Your task to perform on an android device: turn on priority inbox in the gmail app Image 0: 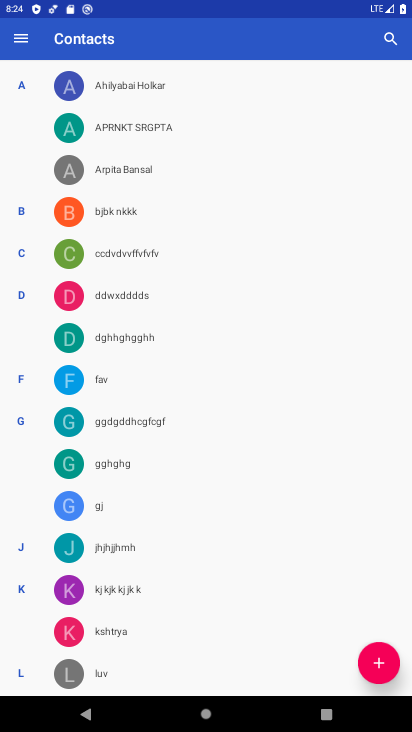
Step 0: press home button
Your task to perform on an android device: turn on priority inbox in the gmail app Image 1: 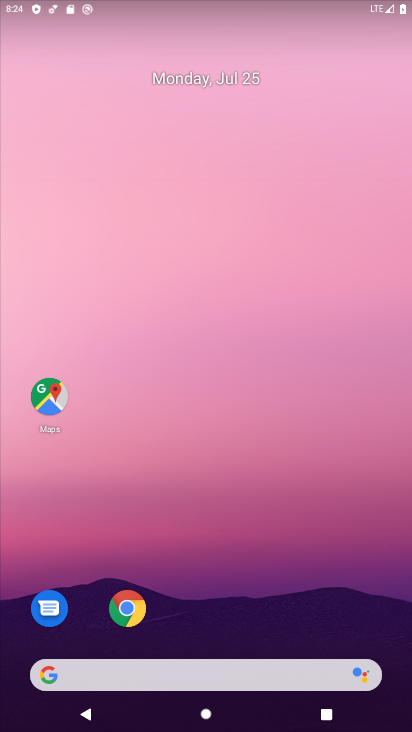
Step 1: drag from (227, 644) to (239, 68)
Your task to perform on an android device: turn on priority inbox in the gmail app Image 2: 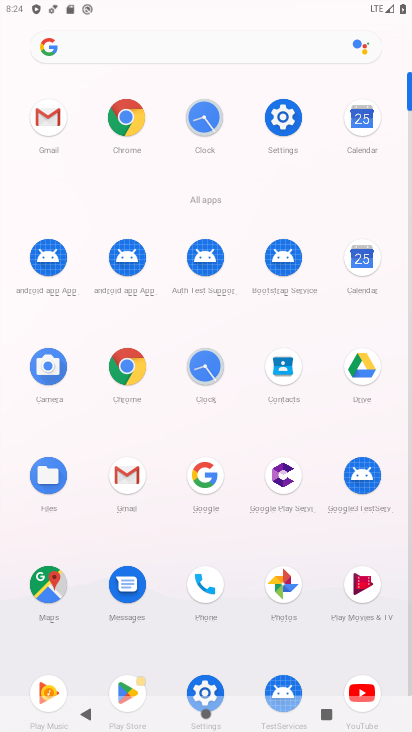
Step 2: click (125, 475)
Your task to perform on an android device: turn on priority inbox in the gmail app Image 3: 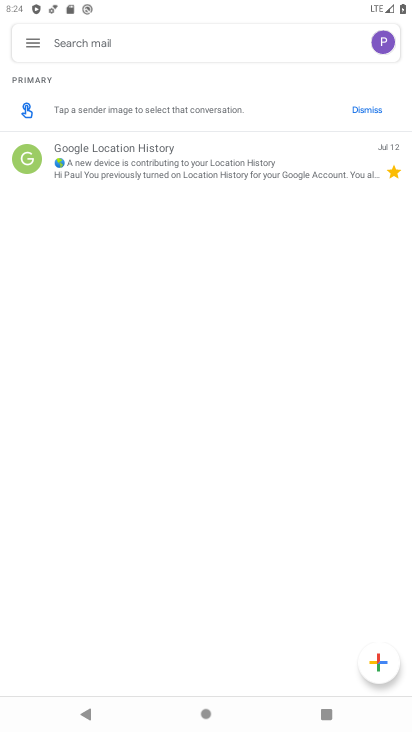
Step 3: click (35, 41)
Your task to perform on an android device: turn on priority inbox in the gmail app Image 4: 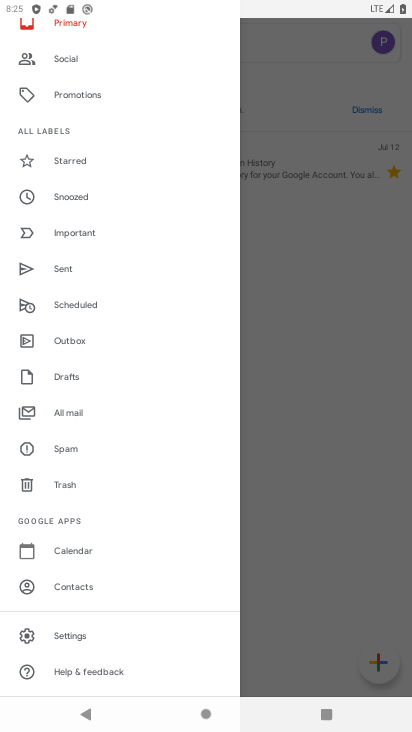
Step 4: click (70, 637)
Your task to perform on an android device: turn on priority inbox in the gmail app Image 5: 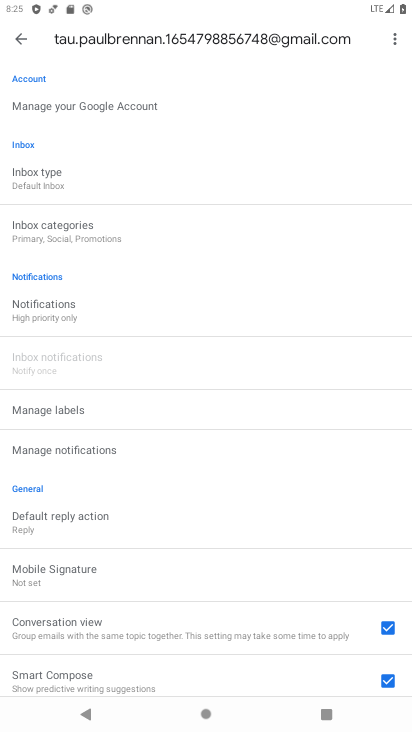
Step 5: click (26, 186)
Your task to perform on an android device: turn on priority inbox in the gmail app Image 6: 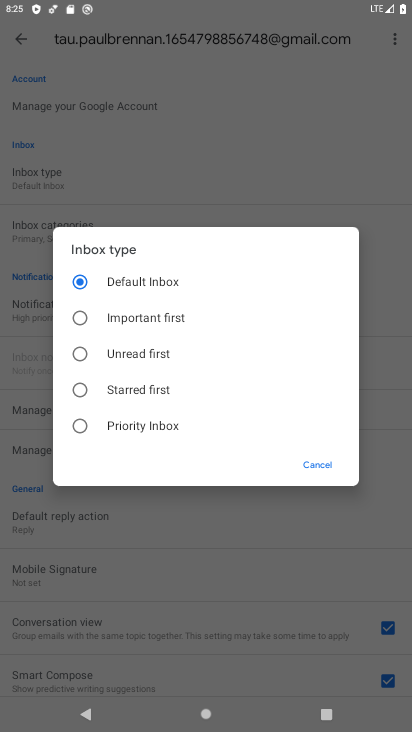
Step 6: click (78, 423)
Your task to perform on an android device: turn on priority inbox in the gmail app Image 7: 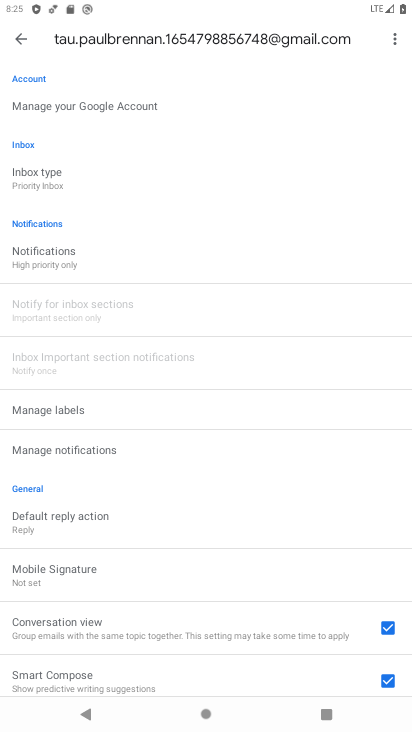
Step 7: task complete